Your task to perform on an android device: Open accessibility settings Image 0: 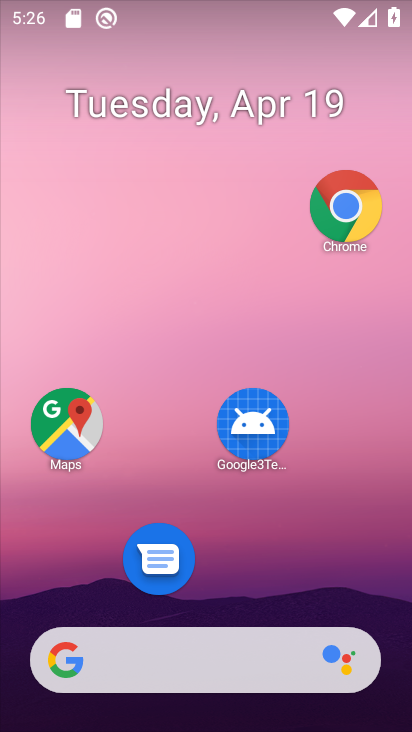
Step 0: drag from (227, 661) to (226, 160)
Your task to perform on an android device: Open accessibility settings Image 1: 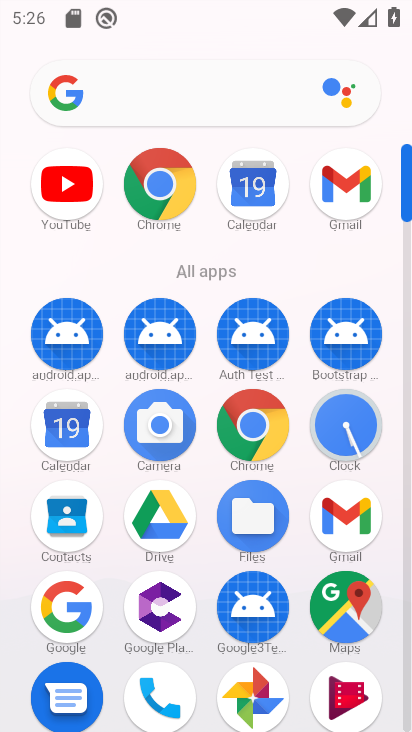
Step 1: drag from (240, 641) to (254, 287)
Your task to perform on an android device: Open accessibility settings Image 2: 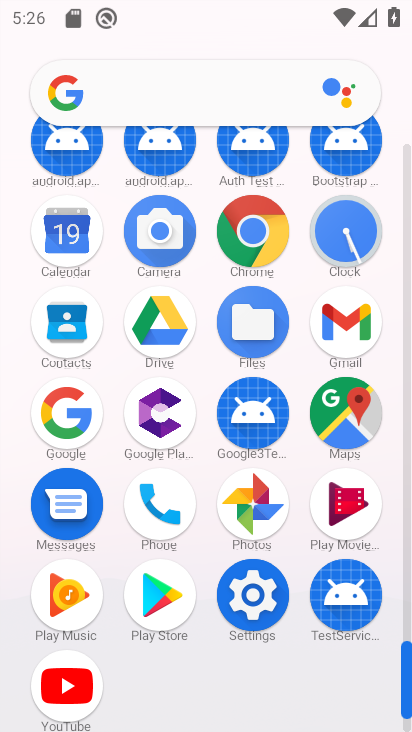
Step 2: click (239, 593)
Your task to perform on an android device: Open accessibility settings Image 3: 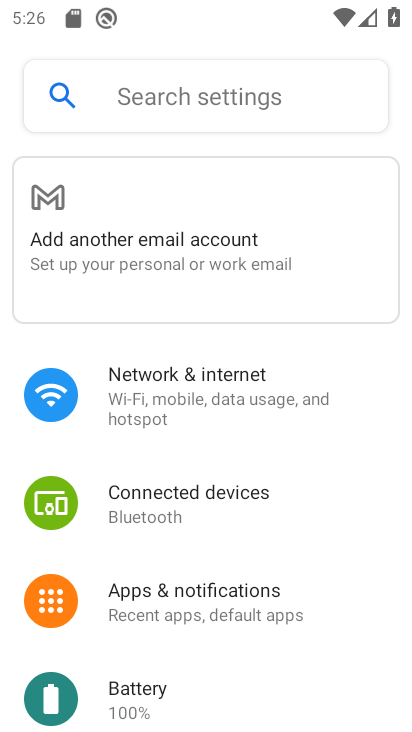
Step 3: drag from (223, 678) to (269, 387)
Your task to perform on an android device: Open accessibility settings Image 4: 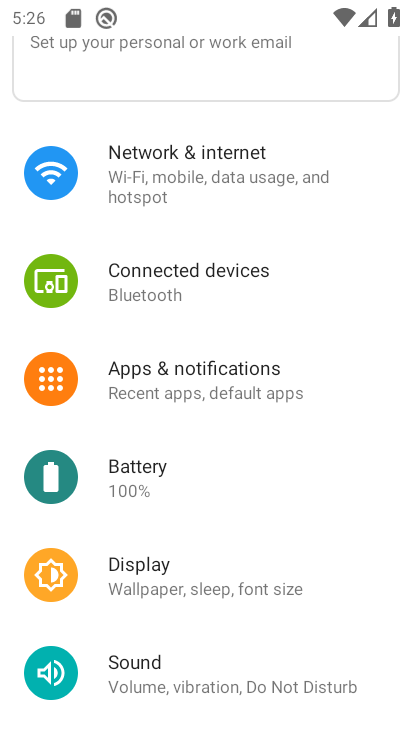
Step 4: drag from (188, 592) to (197, 384)
Your task to perform on an android device: Open accessibility settings Image 5: 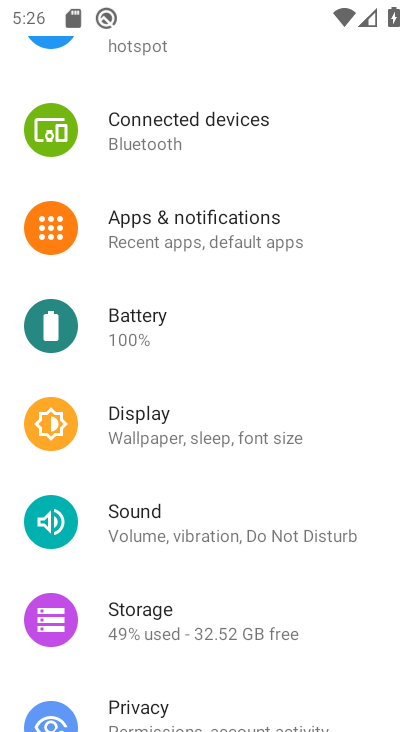
Step 5: drag from (228, 664) to (283, 334)
Your task to perform on an android device: Open accessibility settings Image 6: 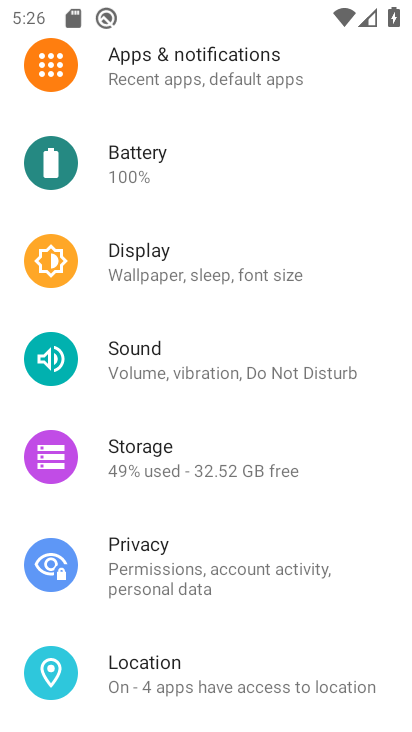
Step 6: drag from (176, 609) to (236, 50)
Your task to perform on an android device: Open accessibility settings Image 7: 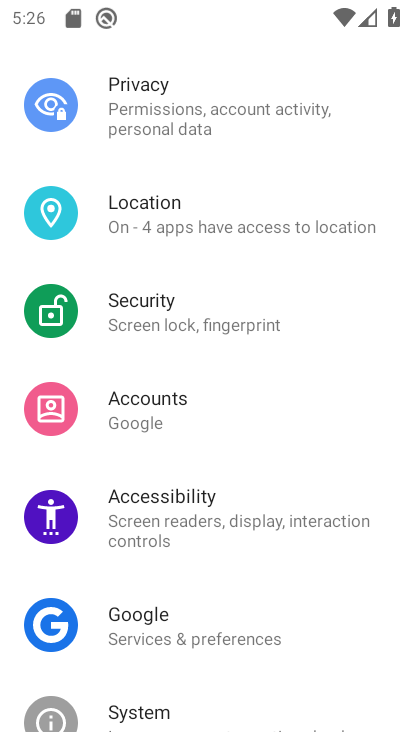
Step 7: click (223, 519)
Your task to perform on an android device: Open accessibility settings Image 8: 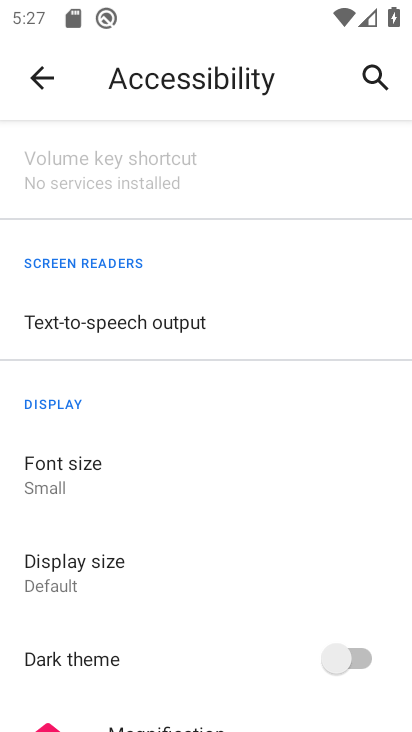
Step 8: task complete